Your task to perform on an android device: View the shopping cart on costco. Add beats solo 3 to the cart on costco, then select checkout. Image 0: 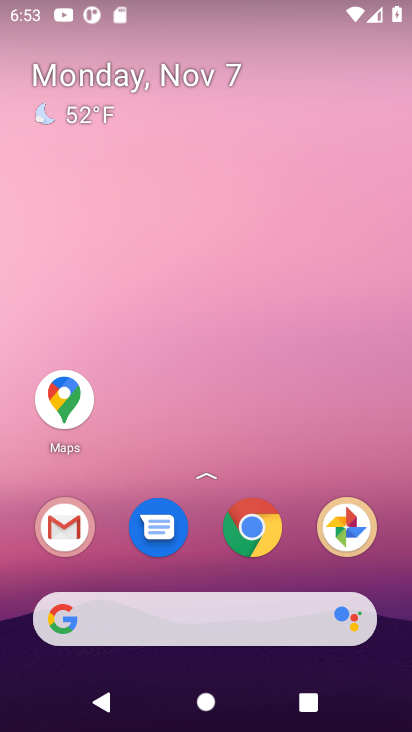
Step 0: click (245, 538)
Your task to perform on an android device: View the shopping cart on costco. Add beats solo 3 to the cart on costco, then select checkout. Image 1: 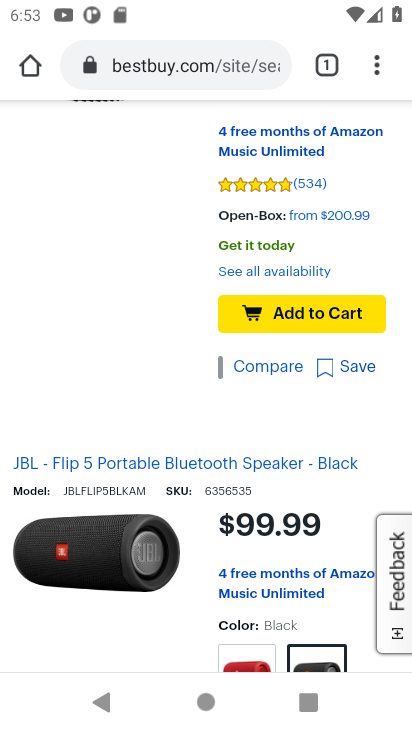
Step 1: click (191, 70)
Your task to perform on an android device: View the shopping cart on costco. Add beats solo 3 to the cart on costco, then select checkout. Image 2: 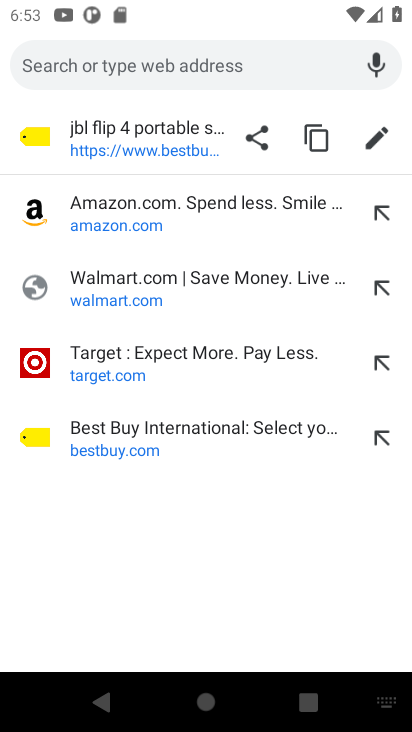
Step 2: type "costco.com"
Your task to perform on an android device: View the shopping cart on costco. Add beats solo 3 to the cart on costco, then select checkout. Image 3: 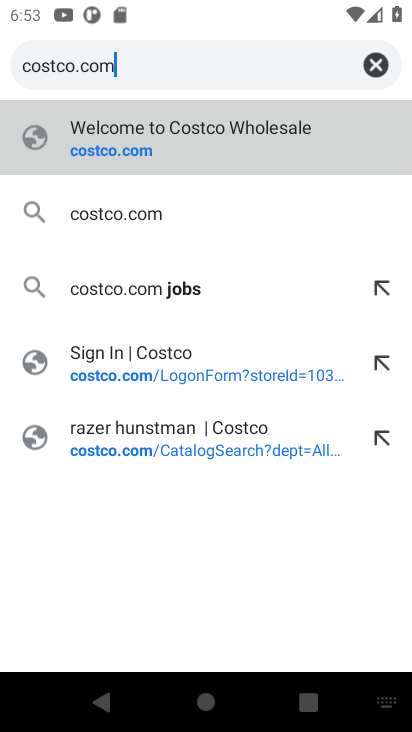
Step 3: click (182, 144)
Your task to perform on an android device: View the shopping cart on costco. Add beats solo 3 to the cart on costco, then select checkout. Image 4: 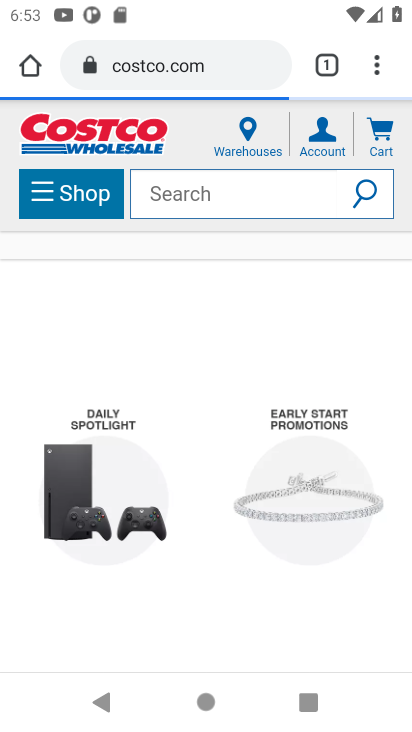
Step 4: click (227, 185)
Your task to perform on an android device: View the shopping cart on costco. Add beats solo 3 to the cart on costco, then select checkout. Image 5: 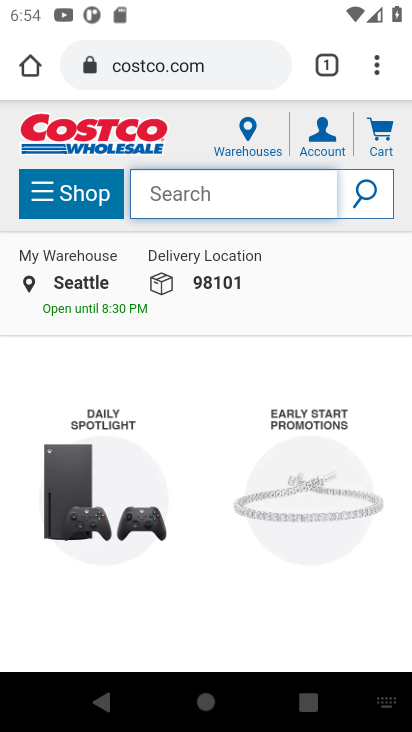
Step 5: type "beats solo 3"
Your task to perform on an android device: View the shopping cart on costco. Add beats solo 3 to the cart on costco, then select checkout. Image 6: 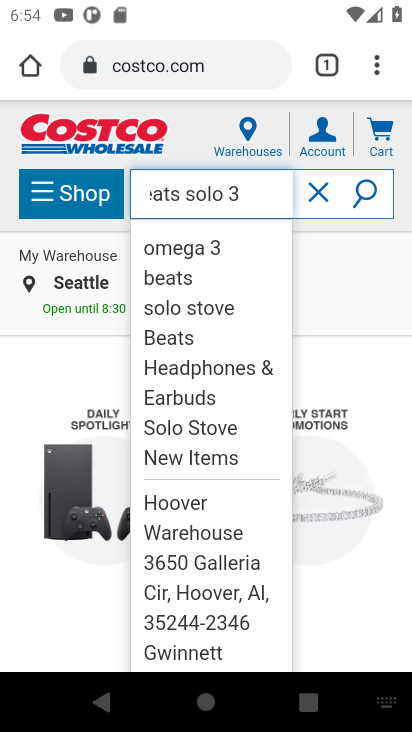
Step 6: press enter
Your task to perform on an android device: View the shopping cart on costco. Add beats solo 3 to the cart on costco, then select checkout. Image 7: 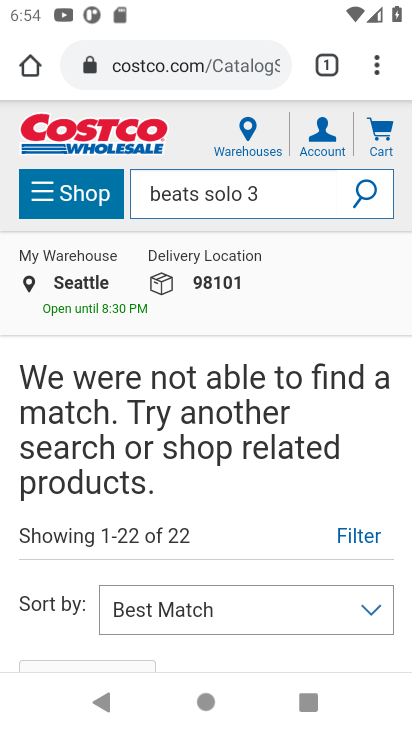
Step 7: task complete